Your task to perform on an android device: open chrome and create a bookmark for the current page Image 0: 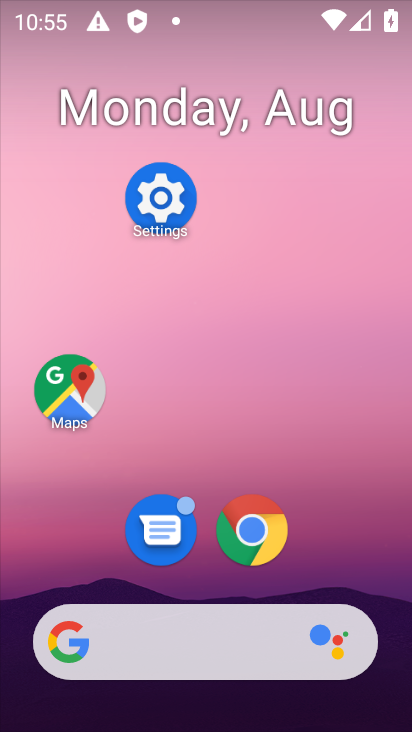
Step 0: drag from (264, 698) to (240, 355)
Your task to perform on an android device: open chrome and create a bookmark for the current page Image 1: 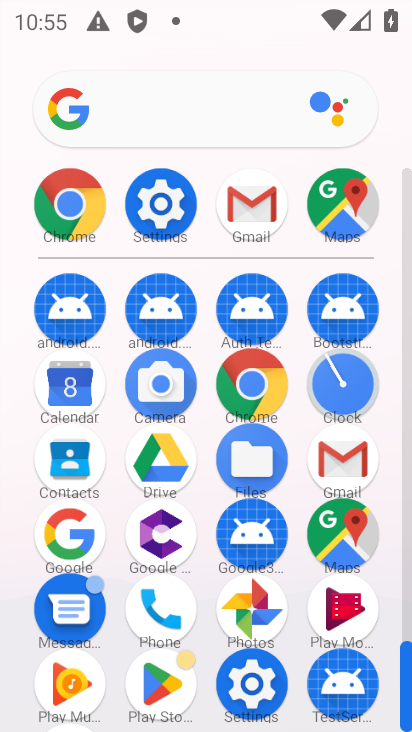
Step 1: click (63, 211)
Your task to perform on an android device: open chrome and create a bookmark for the current page Image 2: 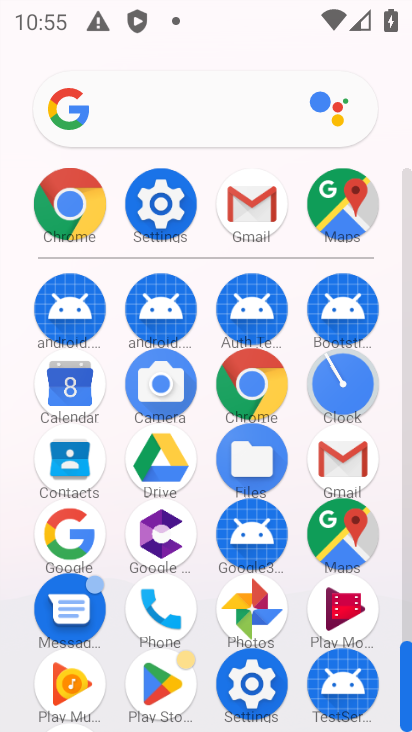
Step 2: click (63, 206)
Your task to perform on an android device: open chrome and create a bookmark for the current page Image 3: 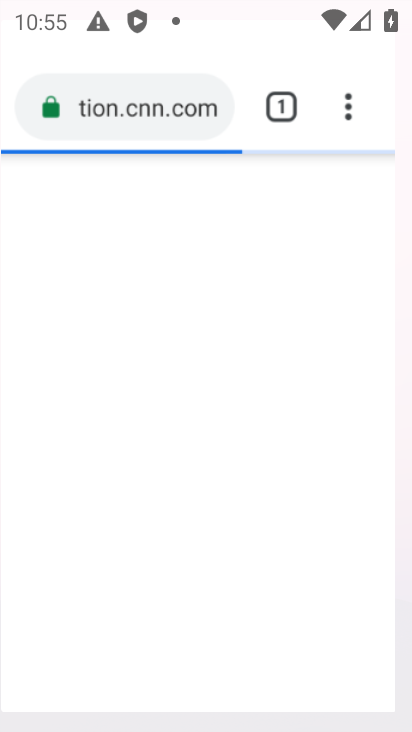
Step 3: click (66, 206)
Your task to perform on an android device: open chrome and create a bookmark for the current page Image 4: 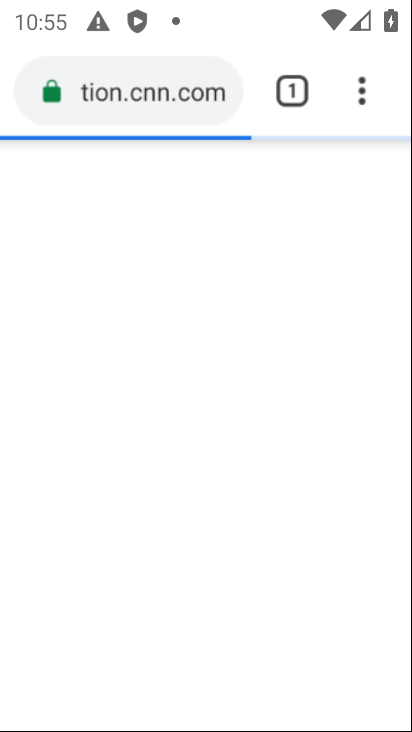
Step 4: click (75, 201)
Your task to perform on an android device: open chrome and create a bookmark for the current page Image 5: 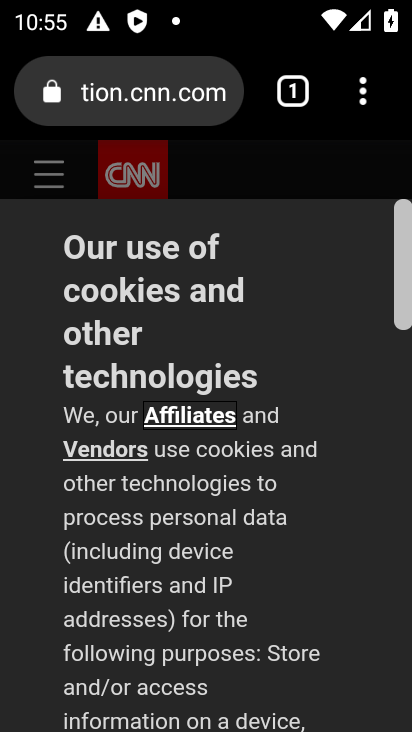
Step 5: drag from (361, 84) to (93, 365)
Your task to perform on an android device: open chrome and create a bookmark for the current page Image 6: 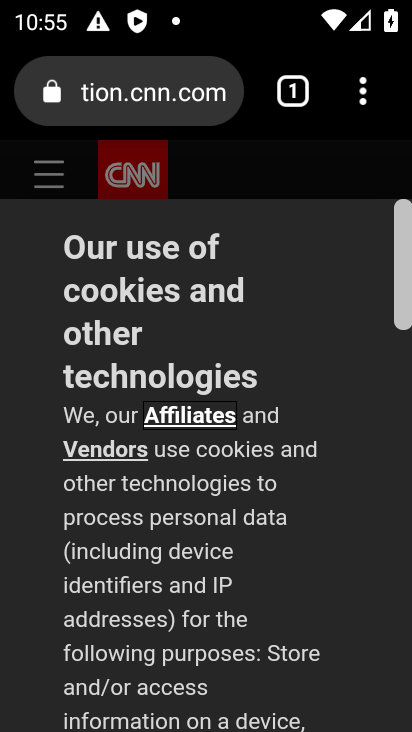
Step 6: click (83, 359)
Your task to perform on an android device: open chrome and create a bookmark for the current page Image 7: 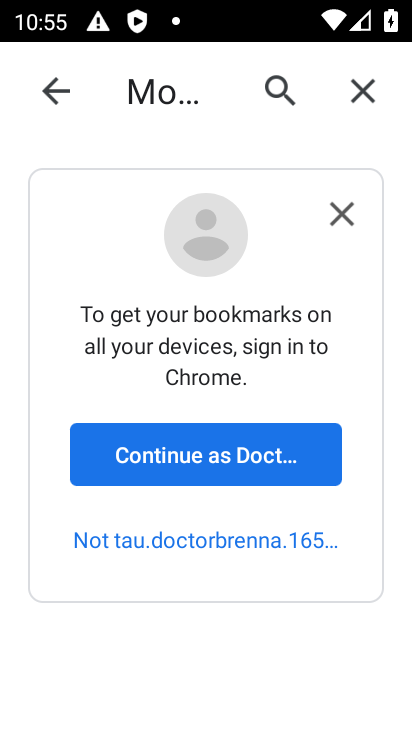
Step 7: click (349, 211)
Your task to perform on an android device: open chrome and create a bookmark for the current page Image 8: 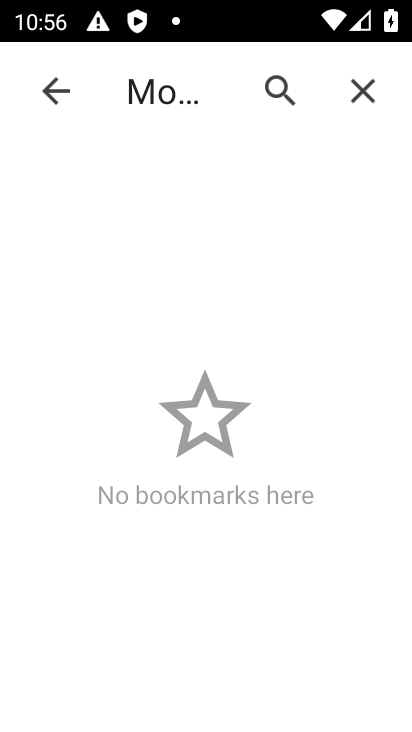
Step 8: click (42, 83)
Your task to perform on an android device: open chrome and create a bookmark for the current page Image 9: 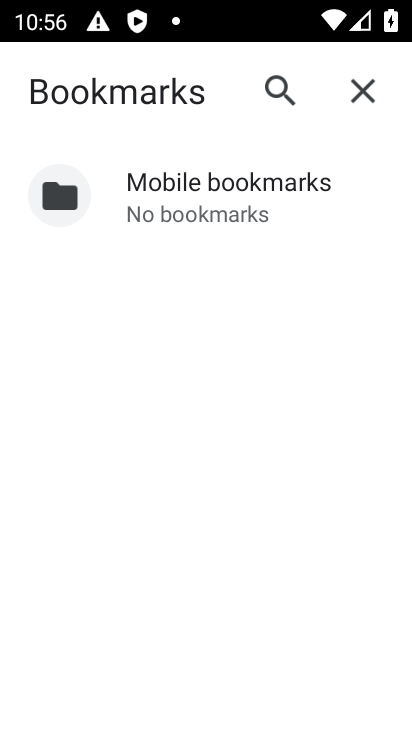
Step 9: click (365, 78)
Your task to perform on an android device: open chrome and create a bookmark for the current page Image 10: 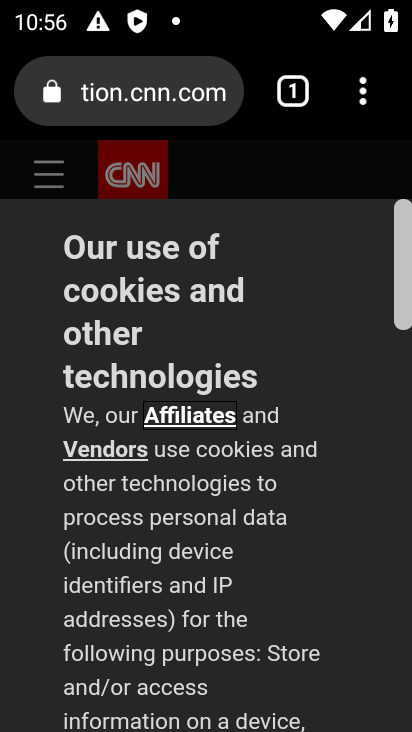
Step 10: click (361, 90)
Your task to perform on an android device: open chrome and create a bookmark for the current page Image 11: 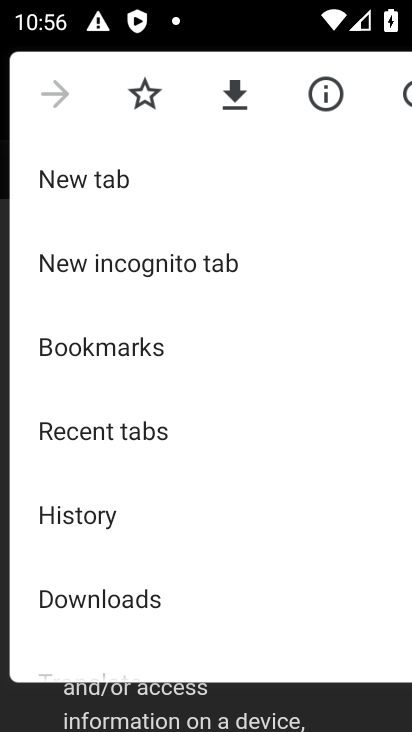
Step 11: click (148, 86)
Your task to perform on an android device: open chrome and create a bookmark for the current page Image 12: 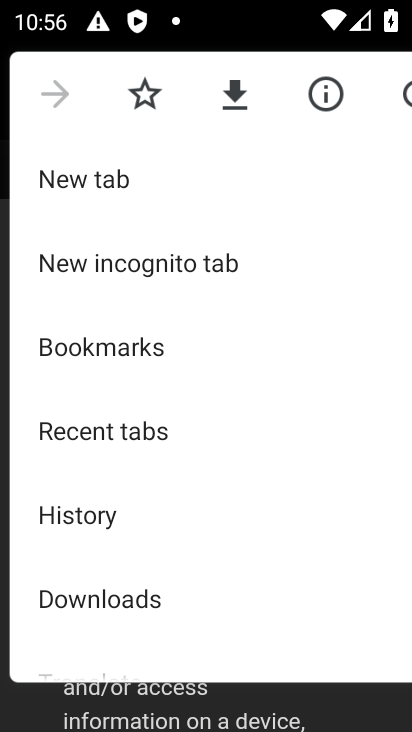
Step 12: click (145, 88)
Your task to perform on an android device: open chrome and create a bookmark for the current page Image 13: 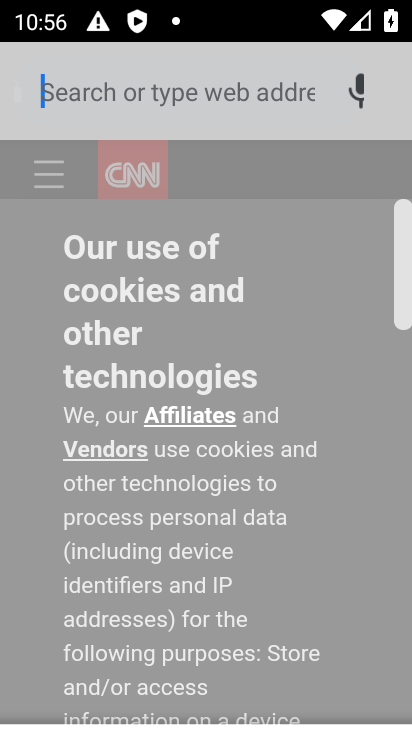
Step 13: click (146, 88)
Your task to perform on an android device: open chrome and create a bookmark for the current page Image 14: 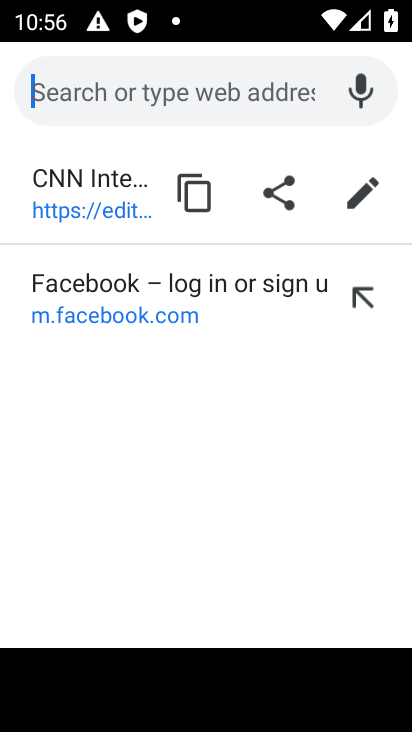
Step 14: task complete